Your task to perform on an android device: open a bookmark in the chrome app Image 0: 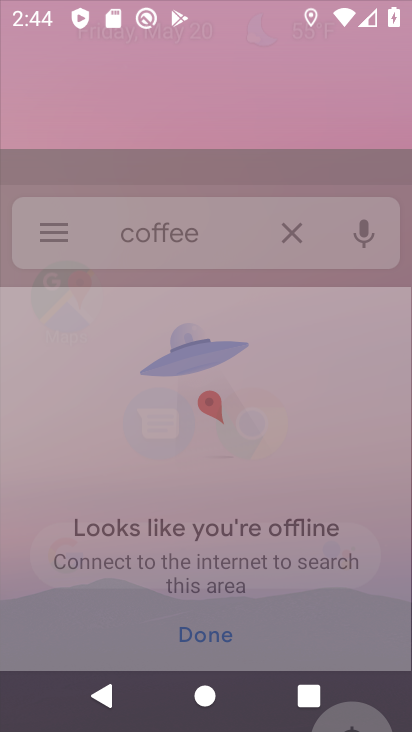
Step 0: drag from (308, 720) to (206, 109)
Your task to perform on an android device: open a bookmark in the chrome app Image 1: 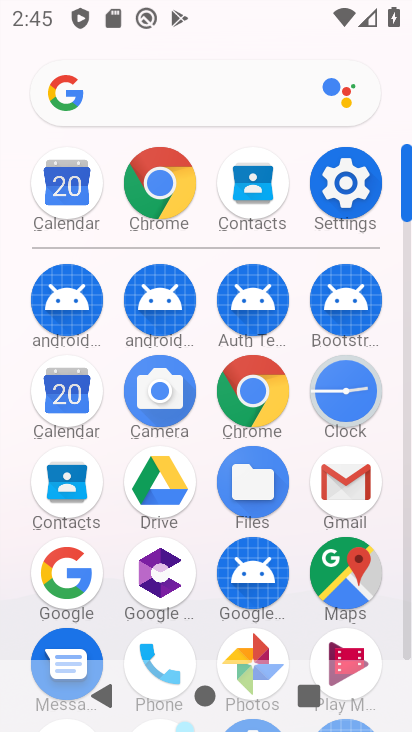
Step 1: click (159, 169)
Your task to perform on an android device: open a bookmark in the chrome app Image 2: 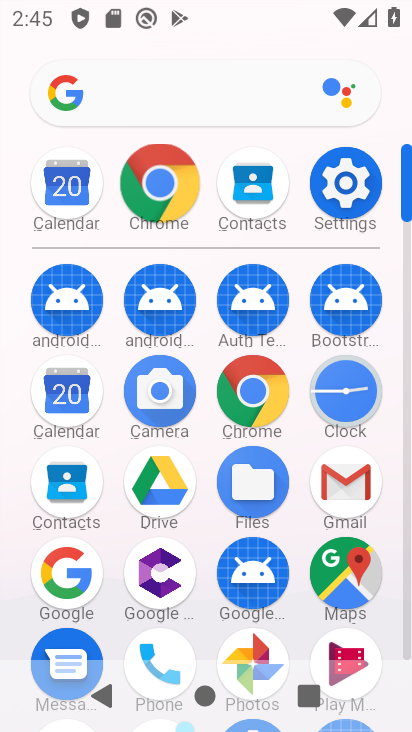
Step 2: click (173, 170)
Your task to perform on an android device: open a bookmark in the chrome app Image 3: 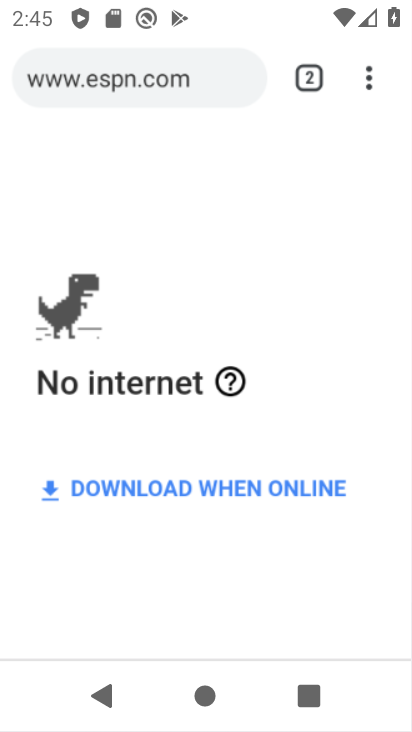
Step 3: click (175, 185)
Your task to perform on an android device: open a bookmark in the chrome app Image 4: 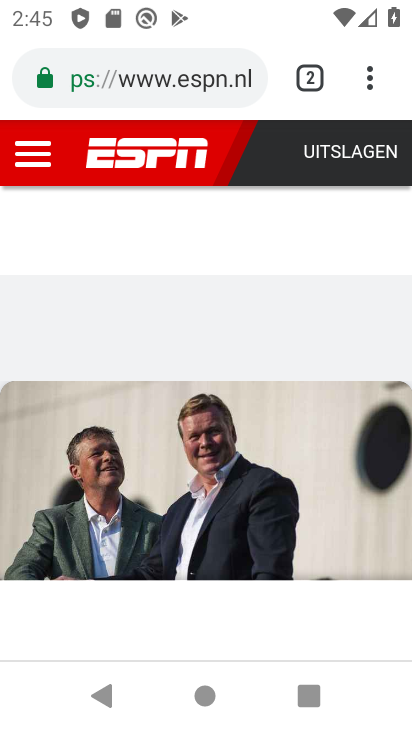
Step 4: press back button
Your task to perform on an android device: open a bookmark in the chrome app Image 5: 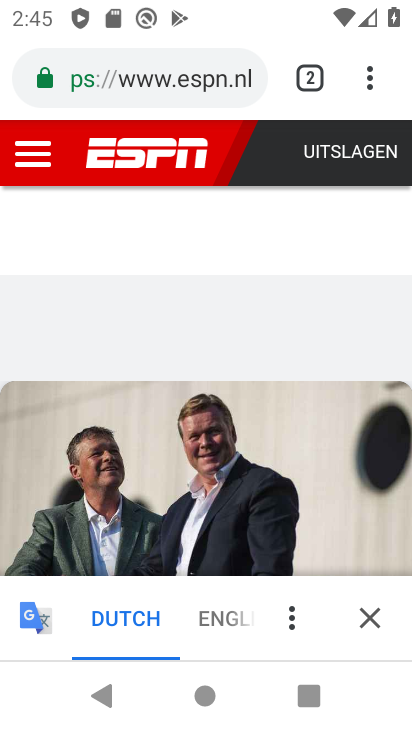
Step 5: press back button
Your task to perform on an android device: open a bookmark in the chrome app Image 6: 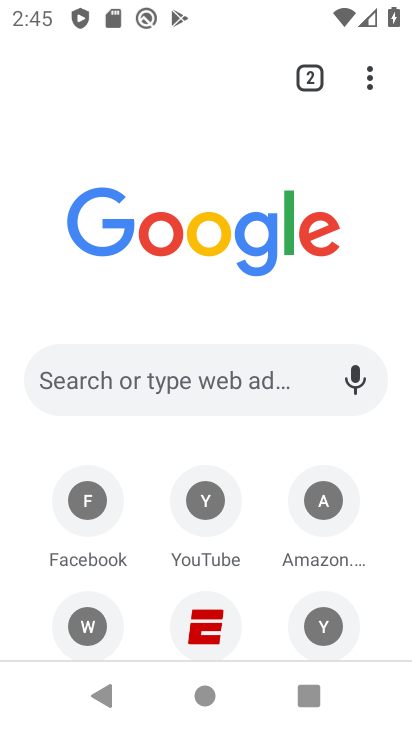
Step 6: press back button
Your task to perform on an android device: open a bookmark in the chrome app Image 7: 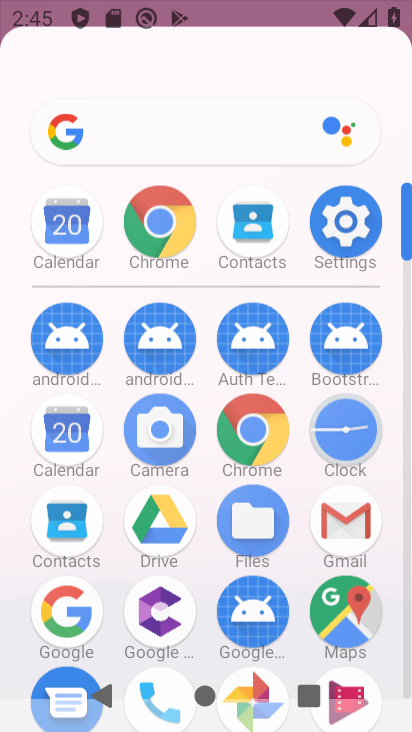
Step 7: press home button
Your task to perform on an android device: open a bookmark in the chrome app Image 8: 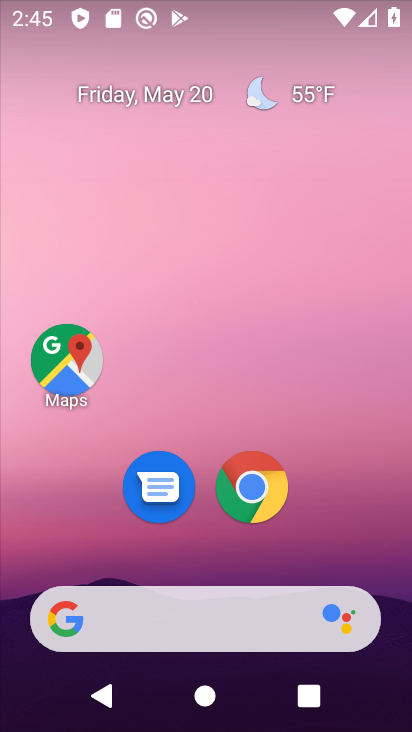
Step 8: drag from (353, 541) to (149, 4)
Your task to perform on an android device: open a bookmark in the chrome app Image 9: 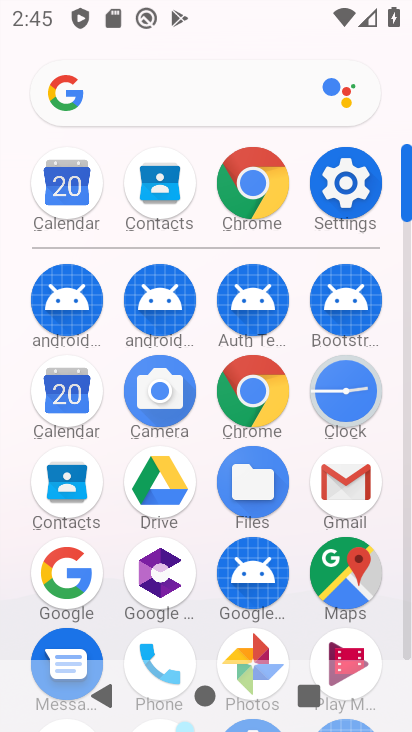
Step 9: click (237, 182)
Your task to perform on an android device: open a bookmark in the chrome app Image 10: 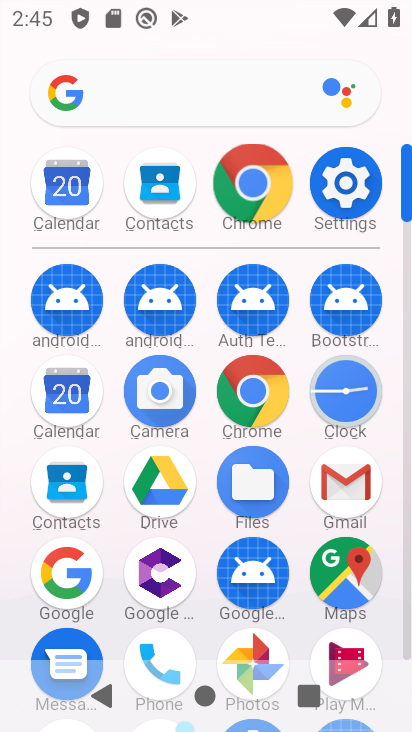
Step 10: click (237, 182)
Your task to perform on an android device: open a bookmark in the chrome app Image 11: 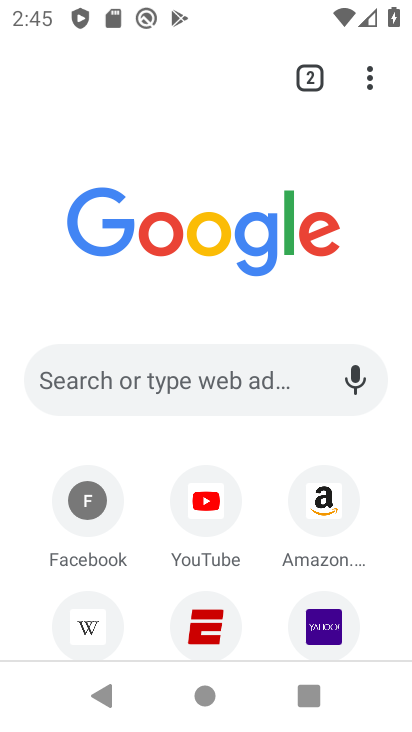
Step 11: click (368, 78)
Your task to perform on an android device: open a bookmark in the chrome app Image 12: 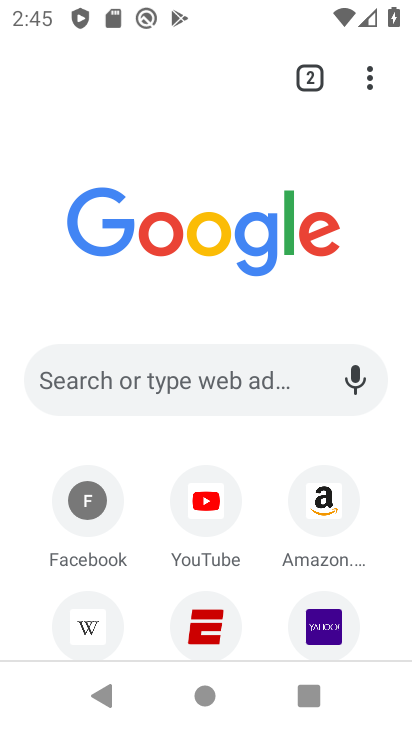
Step 12: click (366, 60)
Your task to perform on an android device: open a bookmark in the chrome app Image 13: 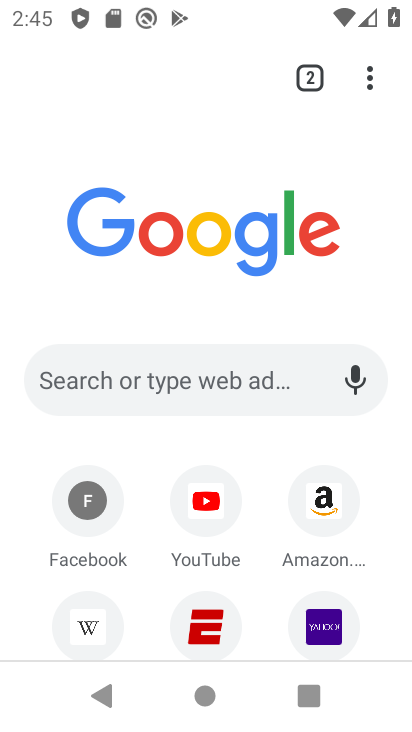
Step 13: drag from (376, 79) to (90, 295)
Your task to perform on an android device: open a bookmark in the chrome app Image 14: 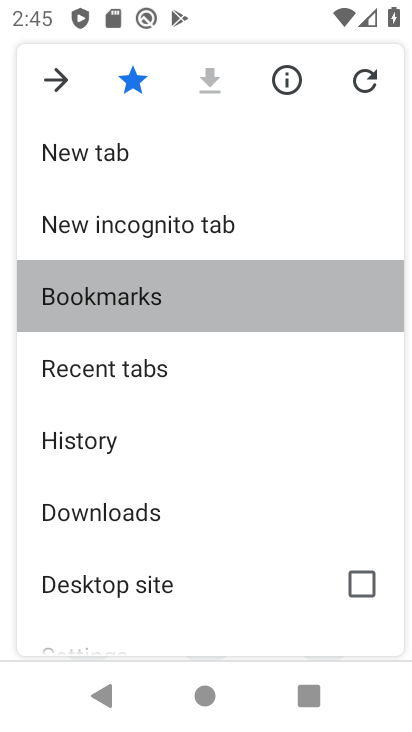
Step 14: click (93, 292)
Your task to perform on an android device: open a bookmark in the chrome app Image 15: 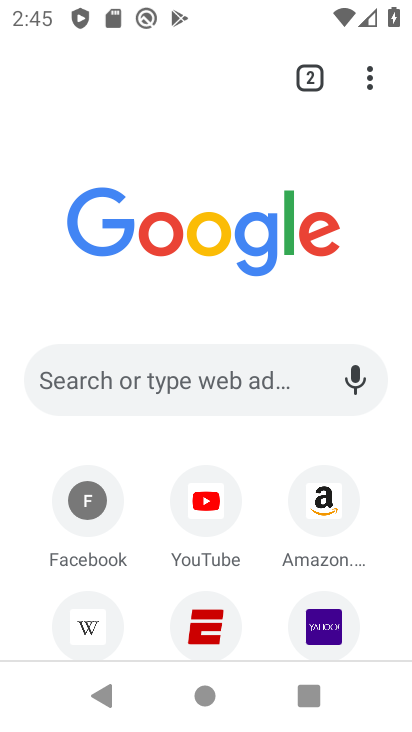
Step 15: click (95, 296)
Your task to perform on an android device: open a bookmark in the chrome app Image 16: 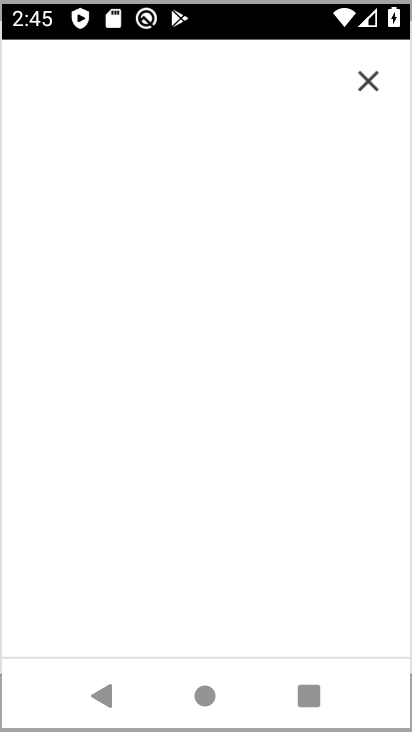
Step 16: click (103, 301)
Your task to perform on an android device: open a bookmark in the chrome app Image 17: 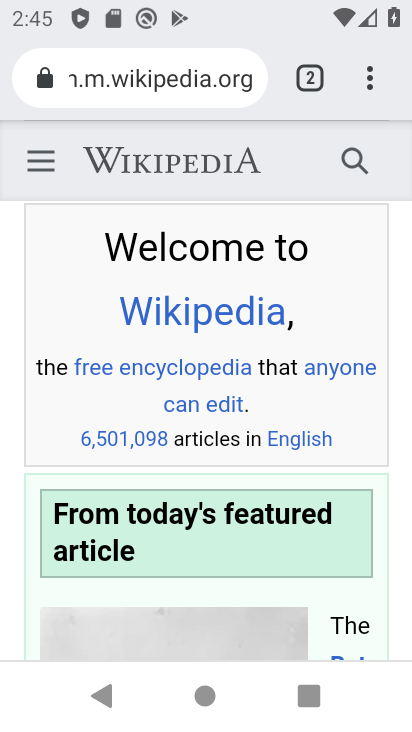
Step 17: press back button
Your task to perform on an android device: open a bookmark in the chrome app Image 18: 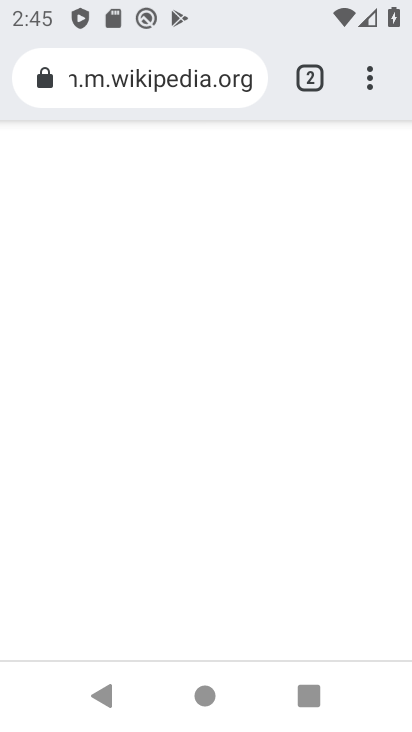
Step 18: press back button
Your task to perform on an android device: open a bookmark in the chrome app Image 19: 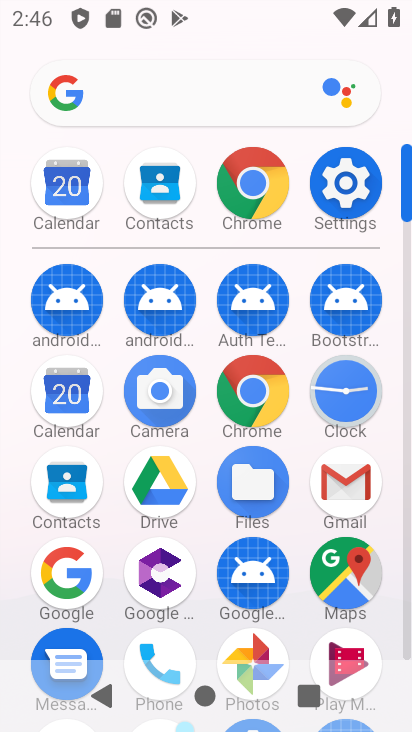
Step 19: click (261, 184)
Your task to perform on an android device: open a bookmark in the chrome app Image 20: 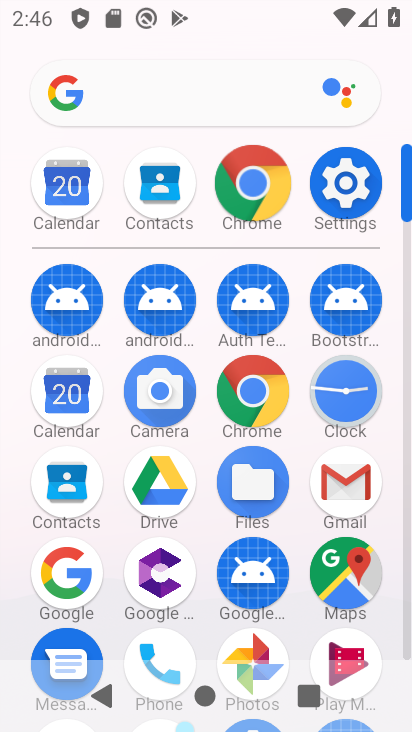
Step 20: click (261, 184)
Your task to perform on an android device: open a bookmark in the chrome app Image 21: 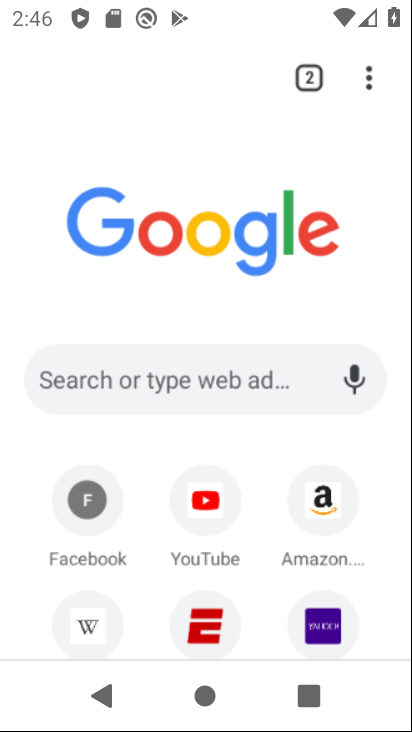
Step 21: click (261, 185)
Your task to perform on an android device: open a bookmark in the chrome app Image 22: 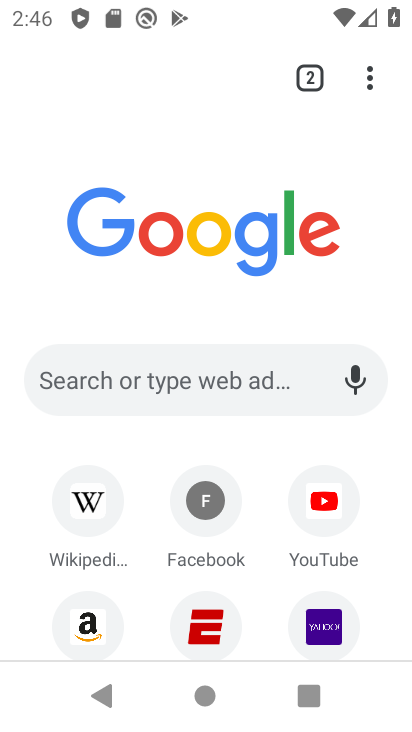
Step 22: click (373, 82)
Your task to perform on an android device: open a bookmark in the chrome app Image 23: 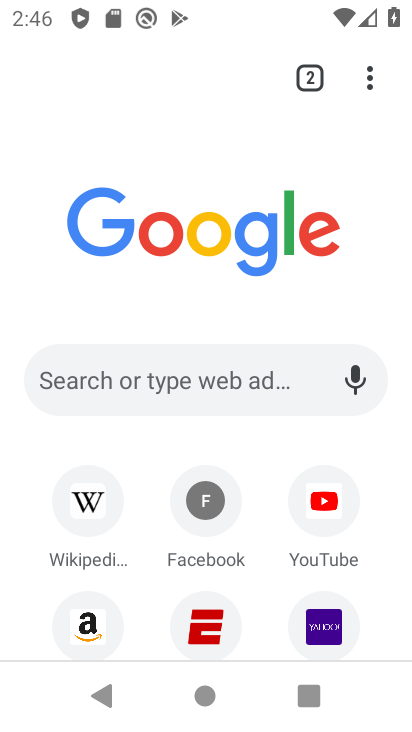
Step 23: drag from (369, 81) to (97, 188)
Your task to perform on an android device: open a bookmark in the chrome app Image 24: 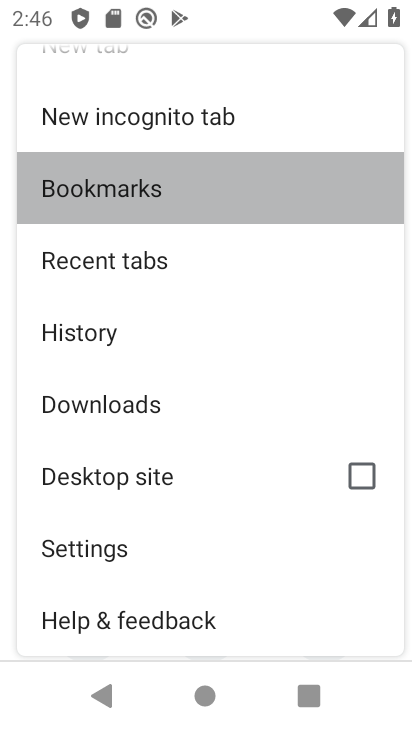
Step 24: click (97, 188)
Your task to perform on an android device: open a bookmark in the chrome app Image 25: 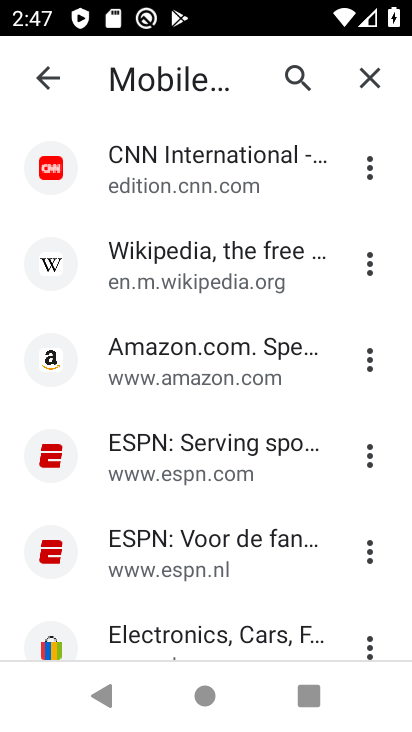
Step 25: click (365, 172)
Your task to perform on an android device: open a bookmark in the chrome app Image 26: 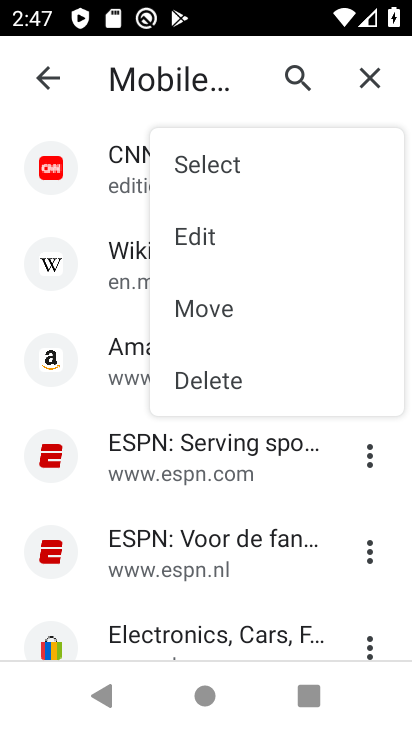
Step 26: click (223, 380)
Your task to perform on an android device: open a bookmark in the chrome app Image 27: 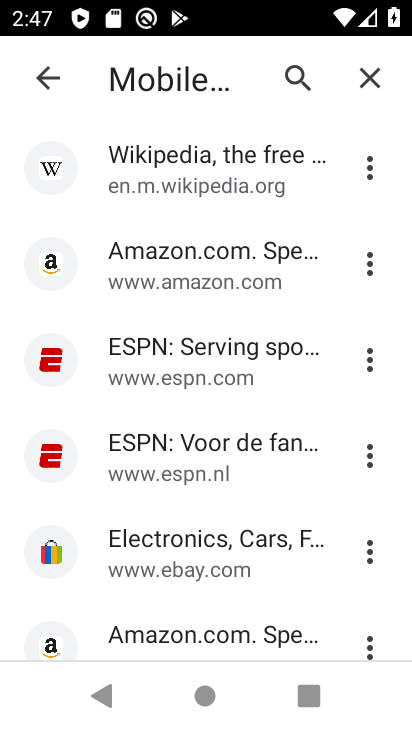
Step 27: task complete